Your task to perform on an android device: toggle notifications settings in the gmail app Image 0: 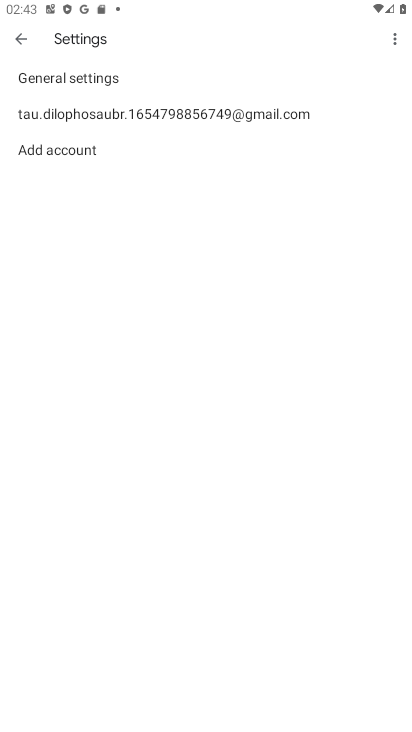
Step 0: press home button
Your task to perform on an android device: toggle notifications settings in the gmail app Image 1: 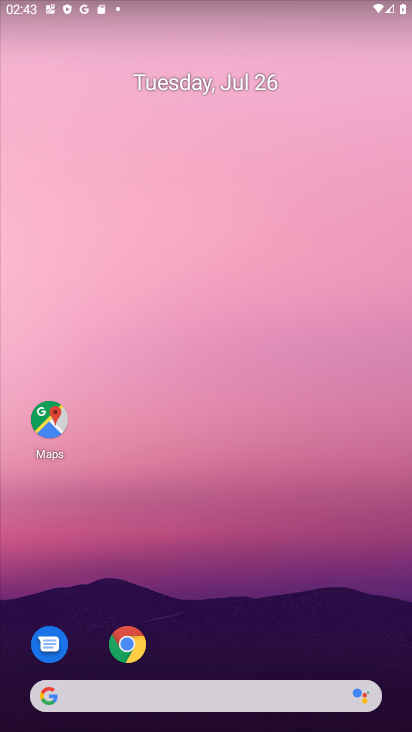
Step 1: drag from (194, 669) to (175, 34)
Your task to perform on an android device: toggle notifications settings in the gmail app Image 2: 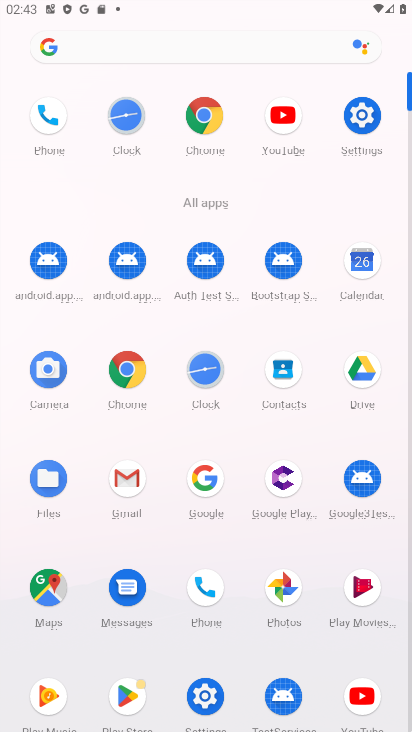
Step 2: click (146, 492)
Your task to perform on an android device: toggle notifications settings in the gmail app Image 3: 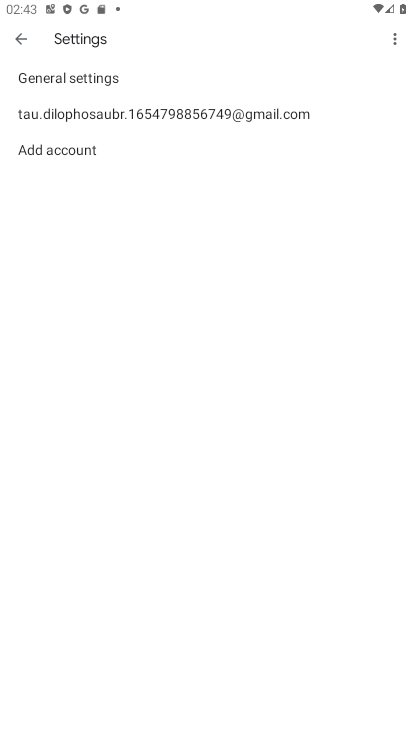
Step 3: click (43, 81)
Your task to perform on an android device: toggle notifications settings in the gmail app Image 4: 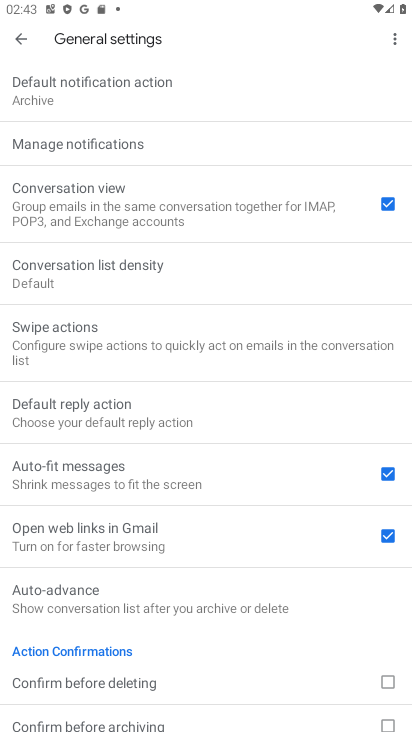
Step 4: click (92, 124)
Your task to perform on an android device: toggle notifications settings in the gmail app Image 5: 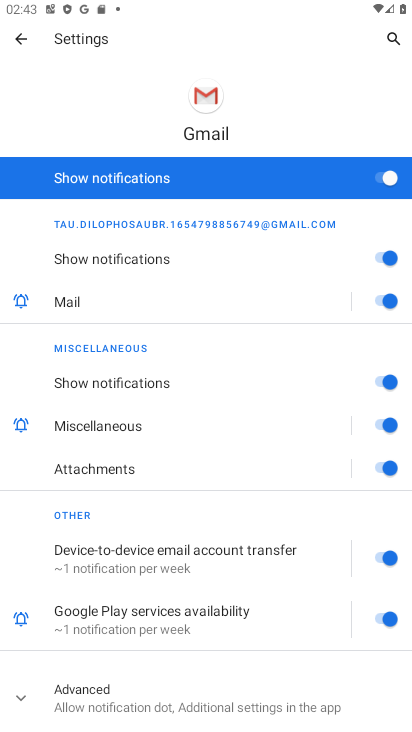
Step 5: click (370, 175)
Your task to perform on an android device: toggle notifications settings in the gmail app Image 6: 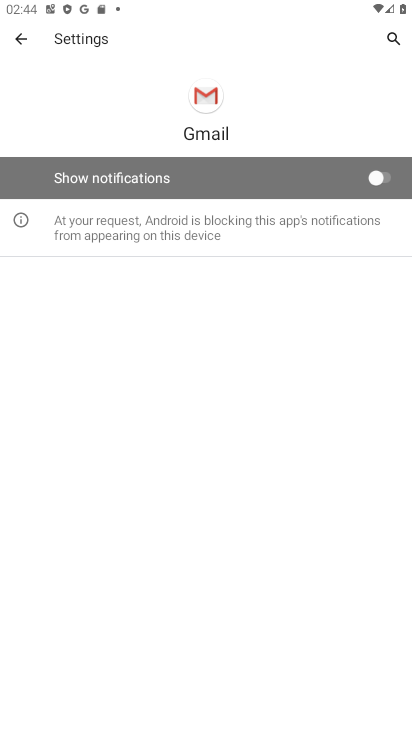
Step 6: task complete